Your task to perform on an android device: delete the emails in spam in the gmail app Image 0: 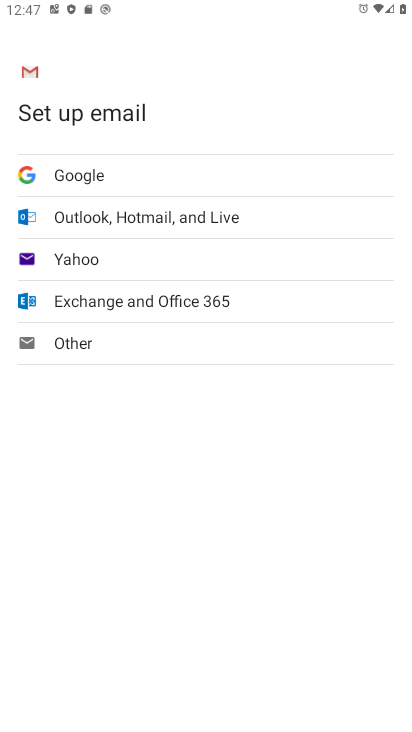
Step 0: press home button
Your task to perform on an android device: delete the emails in spam in the gmail app Image 1: 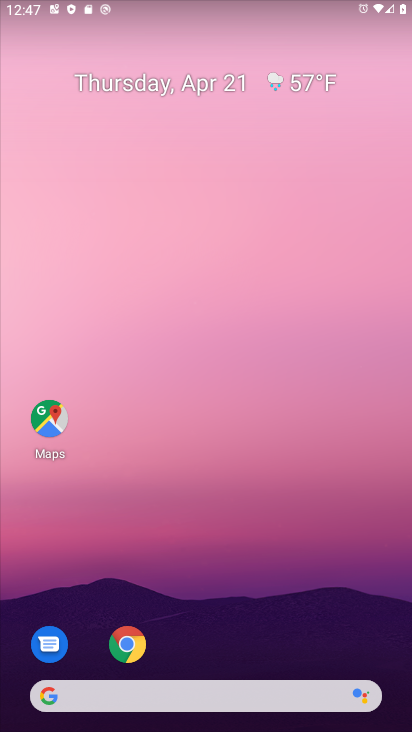
Step 1: drag from (200, 669) to (144, 54)
Your task to perform on an android device: delete the emails in spam in the gmail app Image 2: 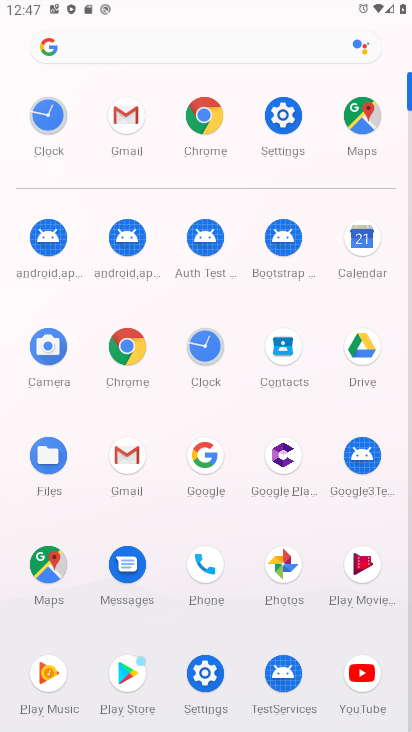
Step 2: click (137, 457)
Your task to perform on an android device: delete the emails in spam in the gmail app Image 3: 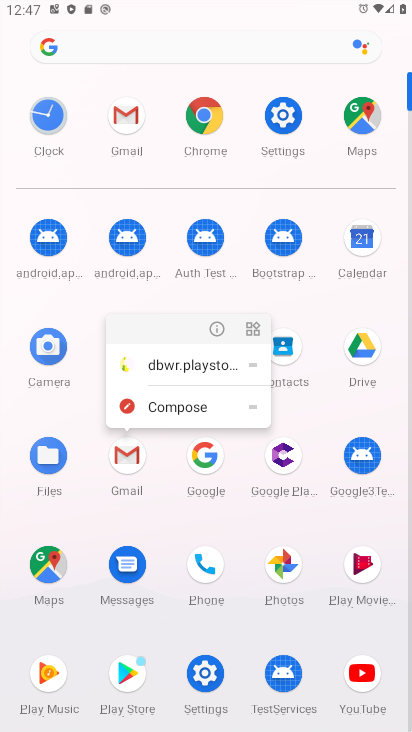
Step 3: click (134, 457)
Your task to perform on an android device: delete the emails in spam in the gmail app Image 4: 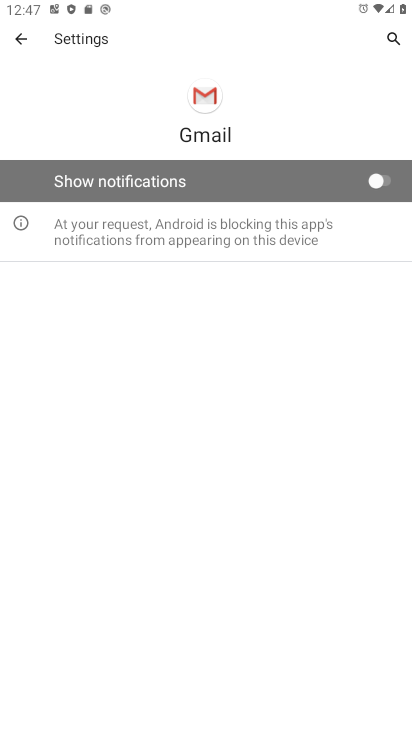
Step 4: click (33, 36)
Your task to perform on an android device: delete the emails in spam in the gmail app Image 5: 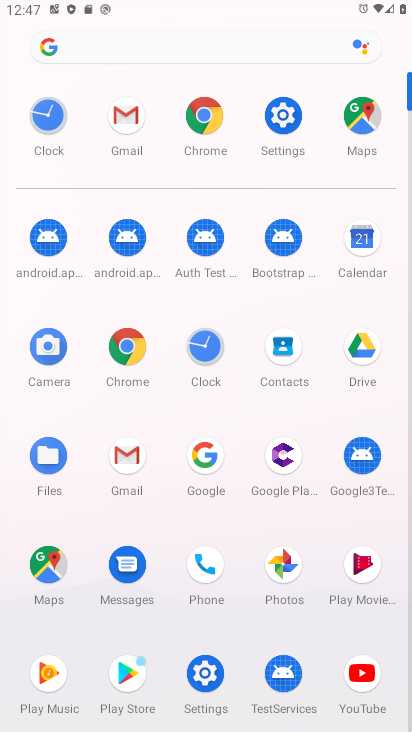
Step 5: click (126, 463)
Your task to perform on an android device: delete the emails in spam in the gmail app Image 6: 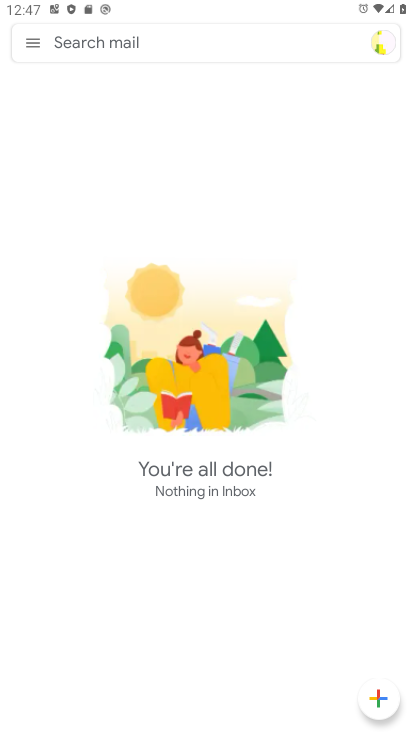
Step 6: click (26, 35)
Your task to perform on an android device: delete the emails in spam in the gmail app Image 7: 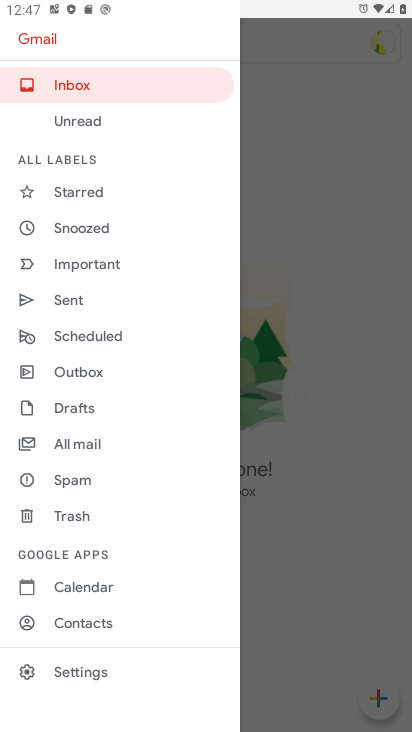
Step 7: click (92, 476)
Your task to perform on an android device: delete the emails in spam in the gmail app Image 8: 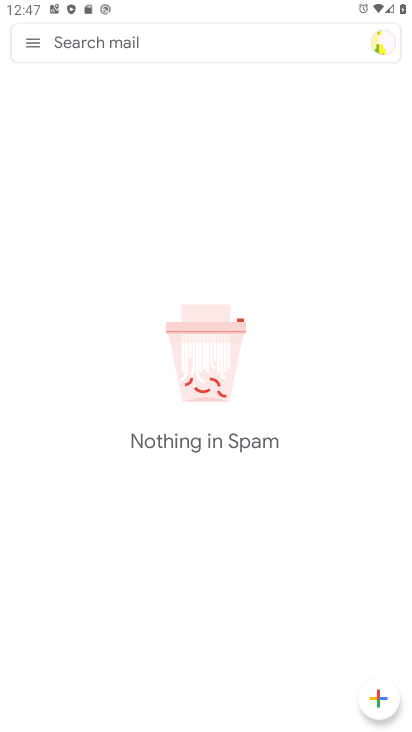
Step 8: task complete